Your task to perform on an android device: What's the weather today? Image 0: 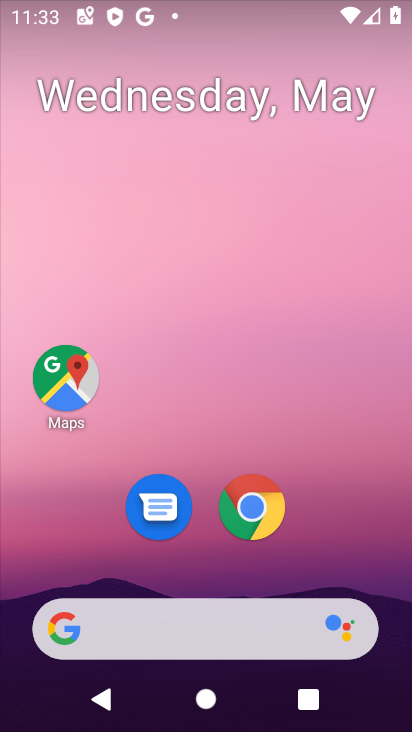
Step 0: press home button
Your task to perform on an android device: What's the weather today? Image 1: 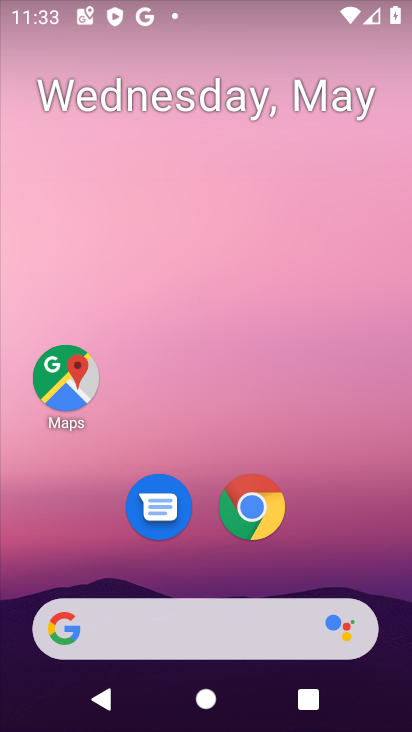
Step 1: click (270, 513)
Your task to perform on an android device: What's the weather today? Image 2: 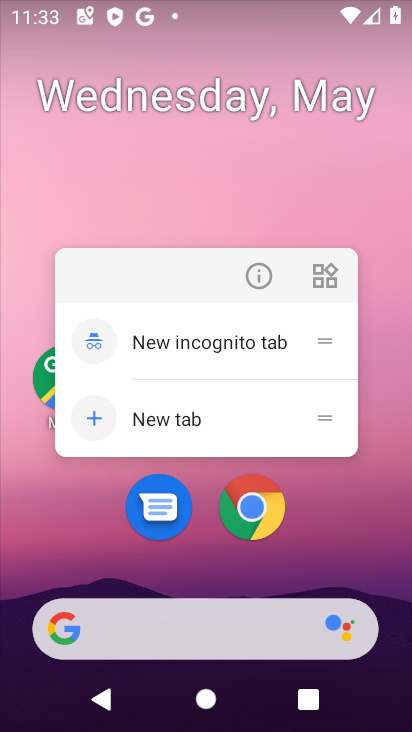
Step 2: click (270, 513)
Your task to perform on an android device: What's the weather today? Image 3: 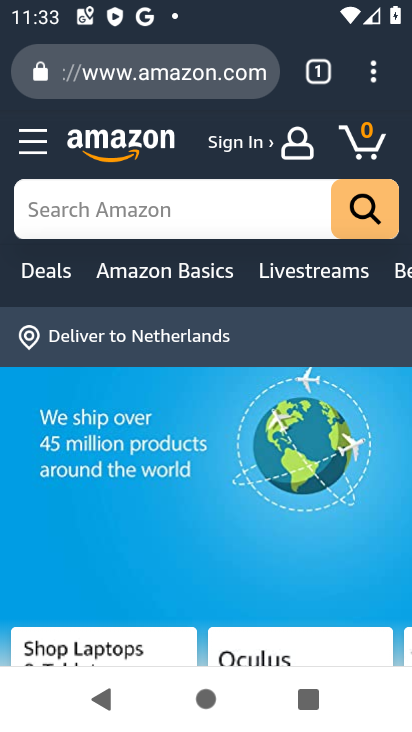
Step 3: click (151, 90)
Your task to perform on an android device: What's the weather today? Image 4: 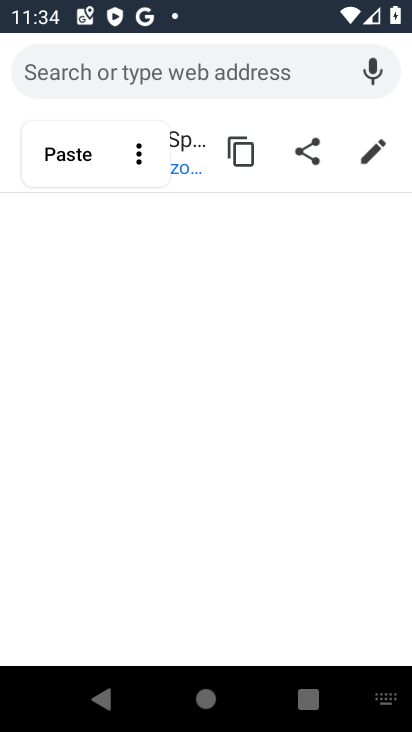
Step 4: type "What's the weather today?"
Your task to perform on an android device: What's the weather today? Image 5: 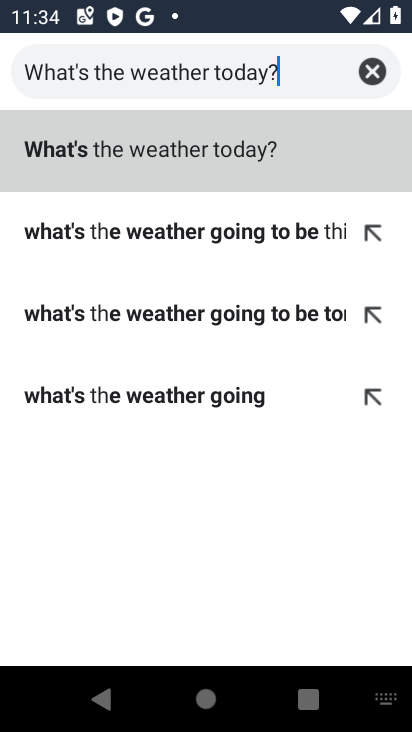
Step 5: type ""
Your task to perform on an android device: What's the weather today? Image 6: 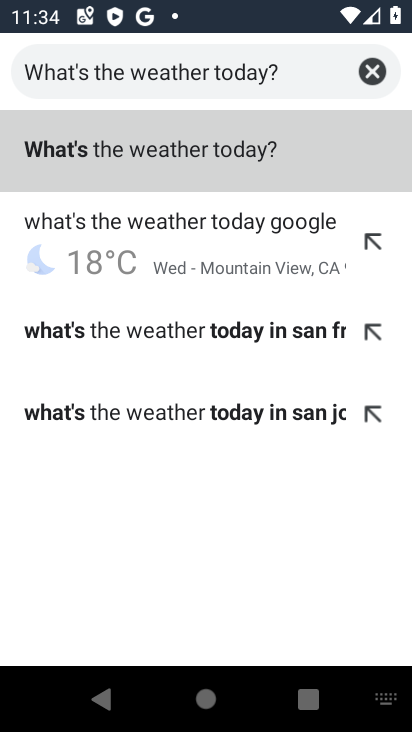
Step 6: click (130, 132)
Your task to perform on an android device: What's the weather today? Image 7: 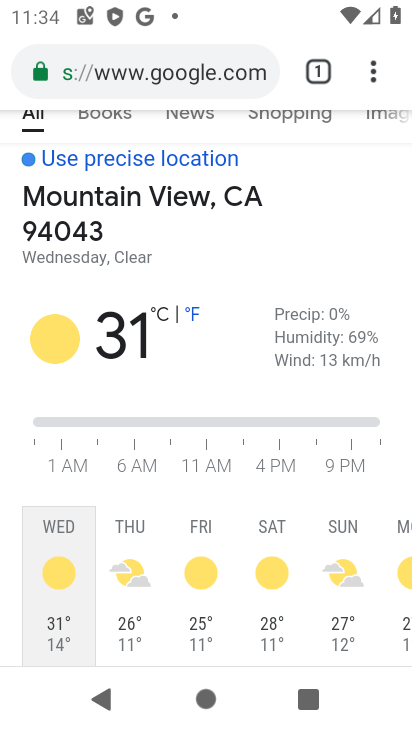
Step 7: task complete